Your task to perform on an android device: Open the calendar and show me this week's events? Image 0: 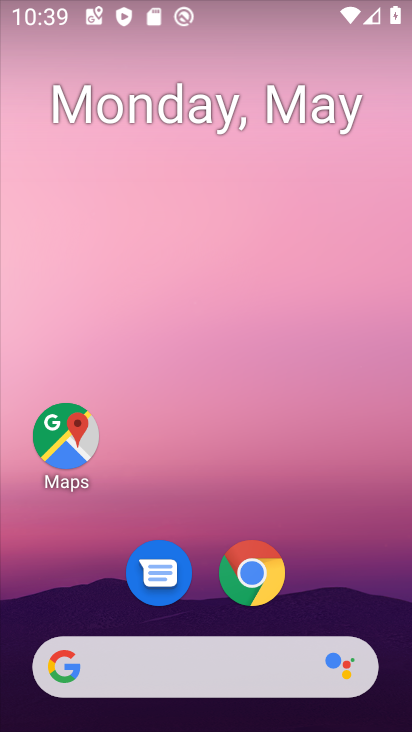
Step 0: drag from (198, 556) to (302, 18)
Your task to perform on an android device: Open the calendar and show me this week's events? Image 1: 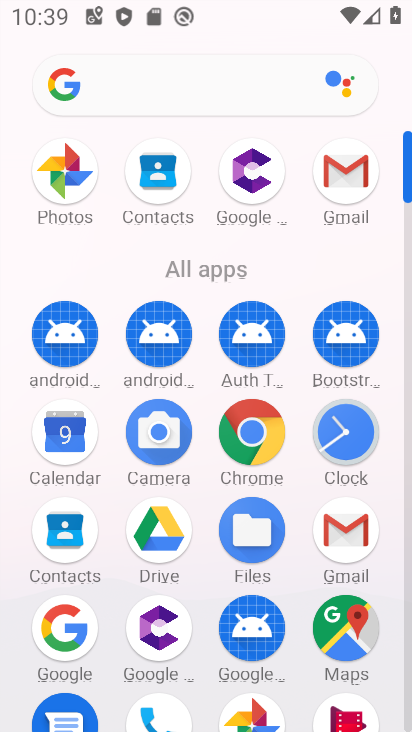
Step 1: click (63, 435)
Your task to perform on an android device: Open the calendar and show me this week's events? Image 2: 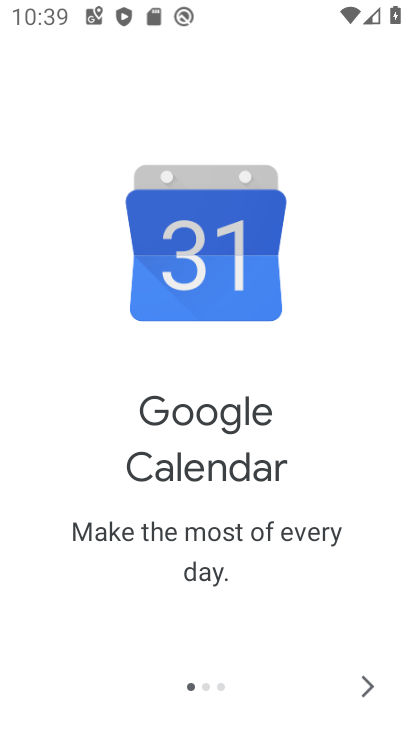
Step 2: click (365, 677)
Your task to perform on an android device: Open the calendar and show me this week's events? Image 3: 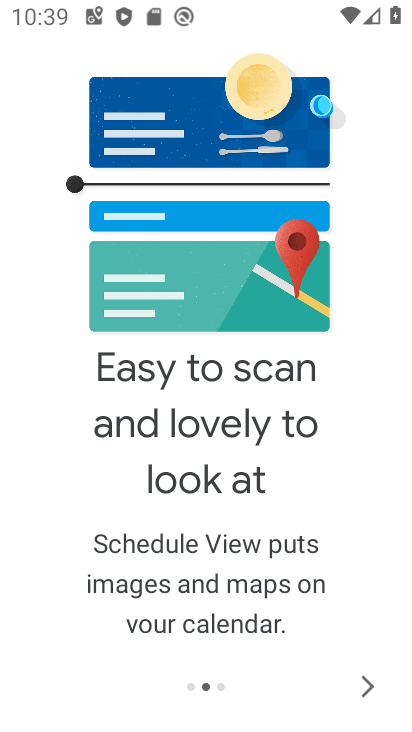
Step 3: click (365, 677)
Your task to perform on an android device: Open the calendar and show me this week's events? Image 4: 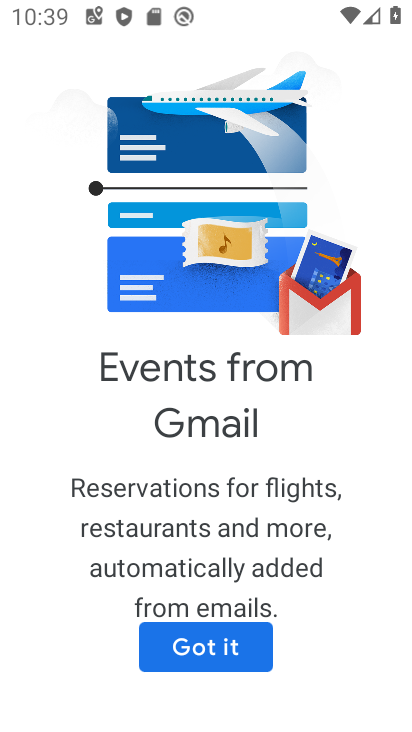
Step 4: click (365, 677)
Your task to perform on an android device: Open the calendar and show me this week's events? Image 5: 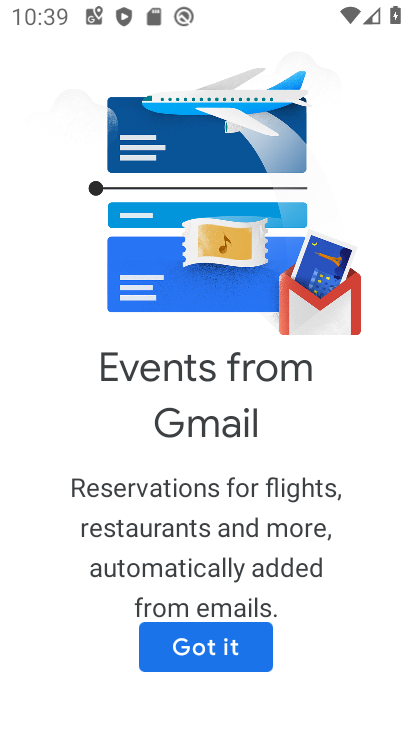
Step 5: click (191, 632)
Your task to perform on an android device: Open the calendar and show me this week's events? Image 6: 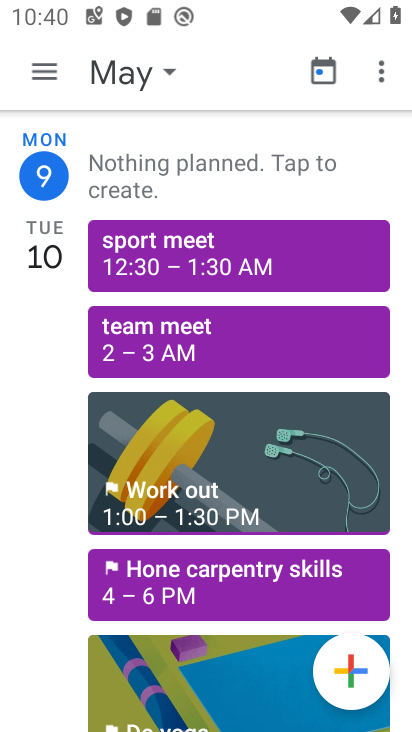
Step 6: click (156, 68)
Your task to perform on an android device: Open the calendar and show me this week's events? Image 7: 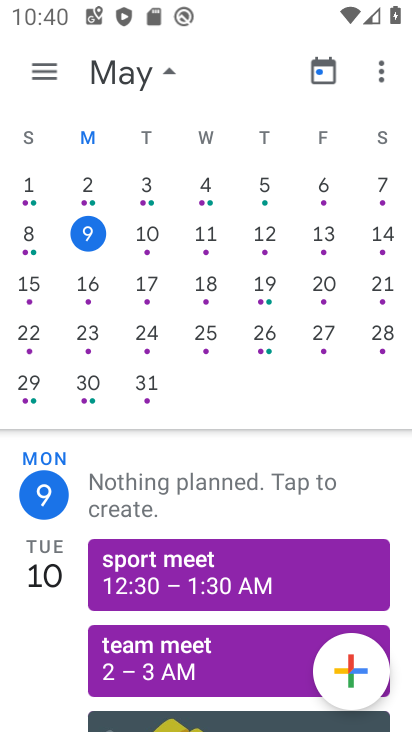
Step 7: click (88, 244)
Your task to perform on an android device: Open the calendar and show me this week's events? Image 8: 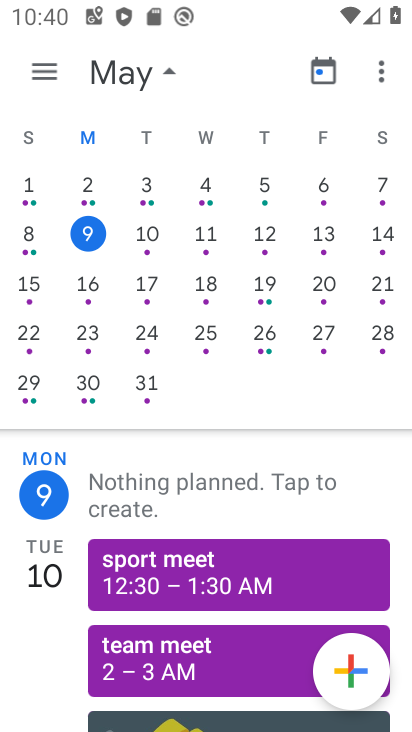
Step 8: task complete